Your task to perform on an android device: Open Android settings Image 0: 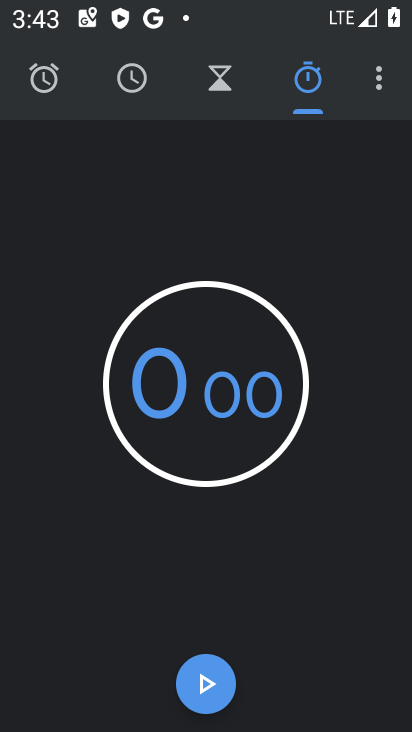
Step 0: press home button
Your task to perform on an android device: Open Android settings Image 1: 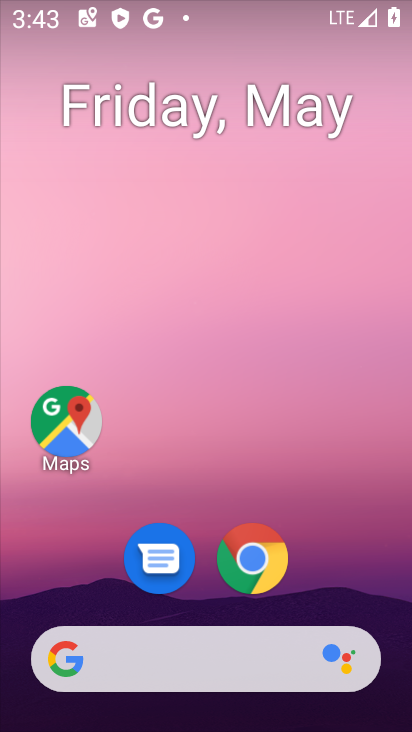
Step 1: drag from (190, 648) to (320, 120)
Your task to perform on an android device: Open Android settings Image 2: 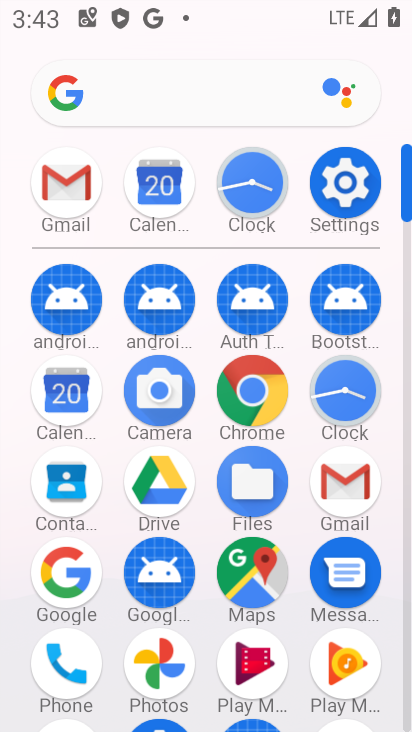
Step 2: click (345, 185)
Your task to perform on an android device: Open Android settings Image 3: 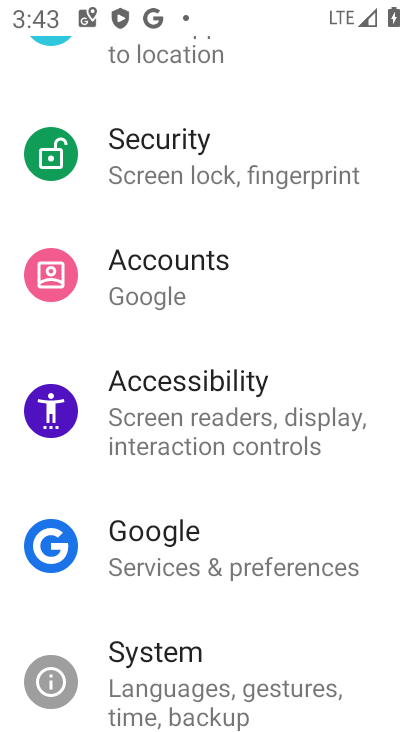
Step 3: drag from (277, 652) to (405, 50)
Your task to perform on an android device: Open Android settings Image 4: 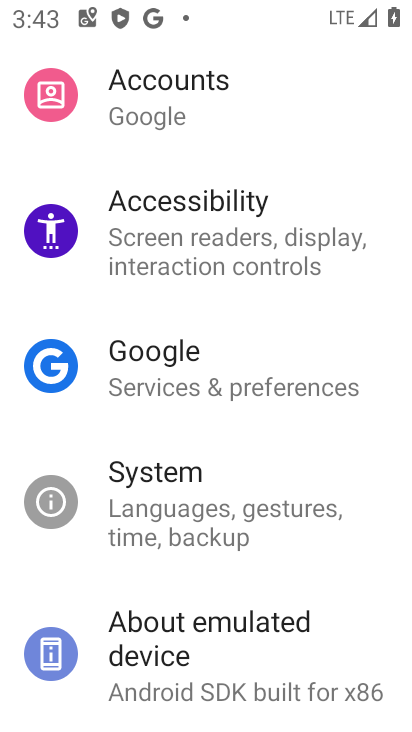
Step 4: click (194, 657)
Your task to perform on an android device: Open Android settings Image 5: 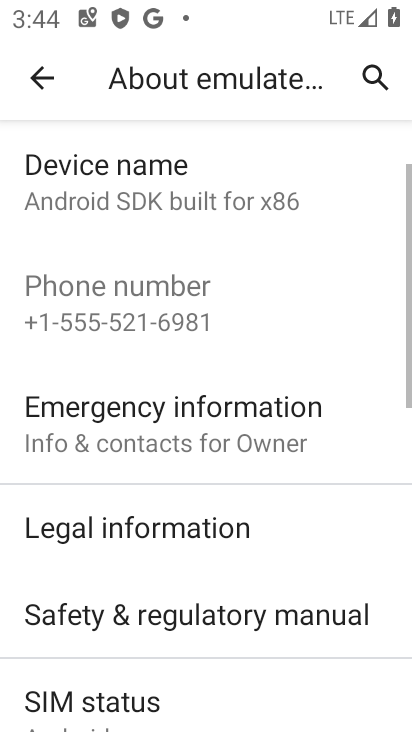
Step 5: task complete